Your task to perform on an android device: Open eBay Image 0: 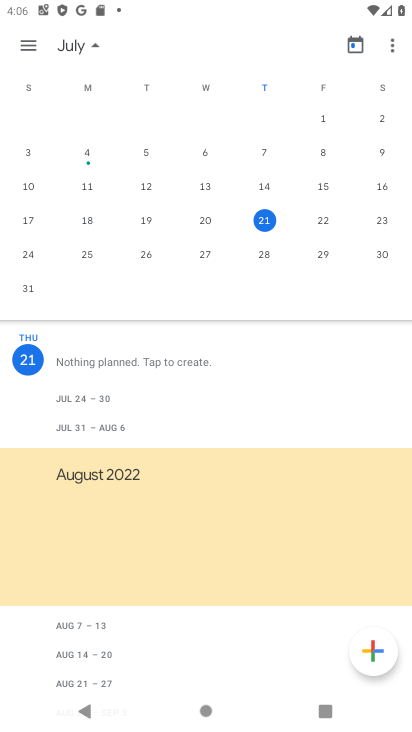
Step 0: press home button
Your task to perform on an android device: Open eBay Image 1: 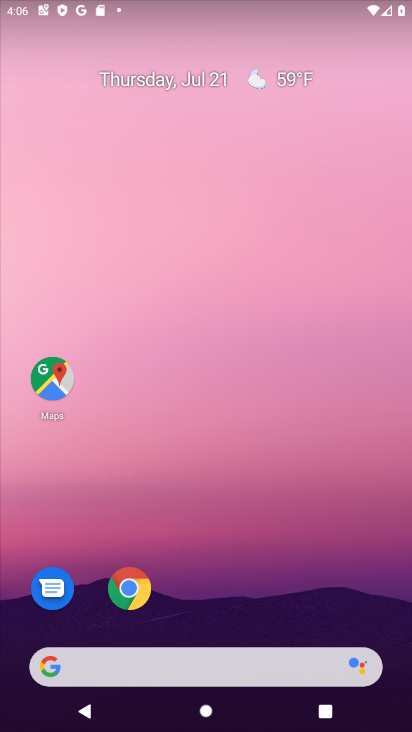
Step 1: click (127, 589)
Your task to perform on an android device: Open eBay Image 2: 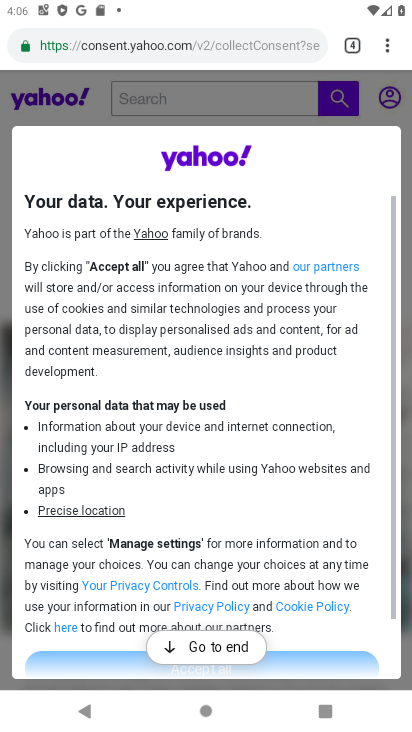
Step 2: click (388, 50)
Your task to perform on an android device: Open eBay Image 3: 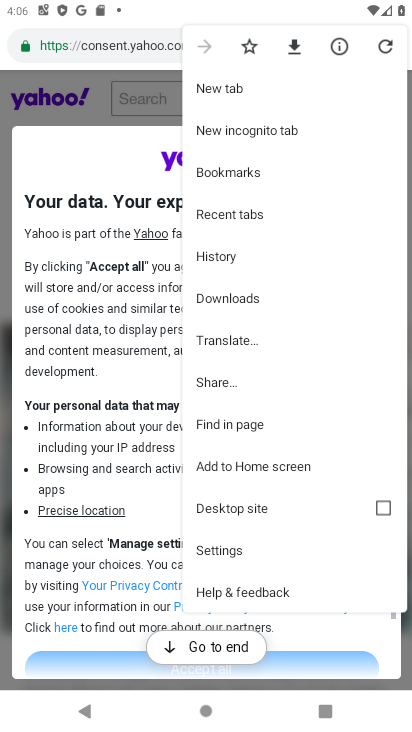
Step 3: click (219, 86)
Your task to perform on an android device: Open eBay Image 4: 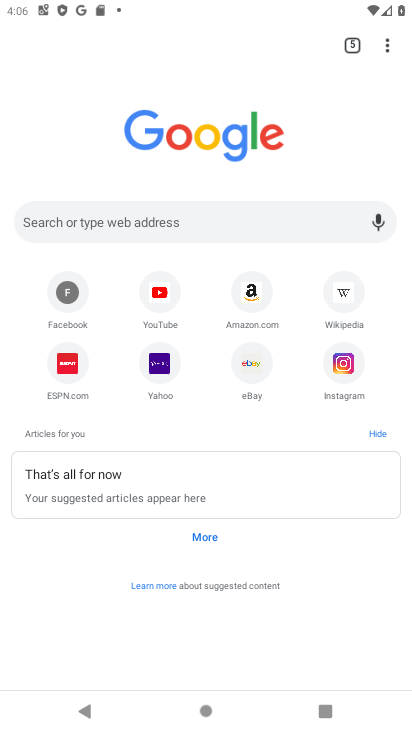
Step 4: click (246, 357)
Your task to perform on an android device: Open eBay Image 5: 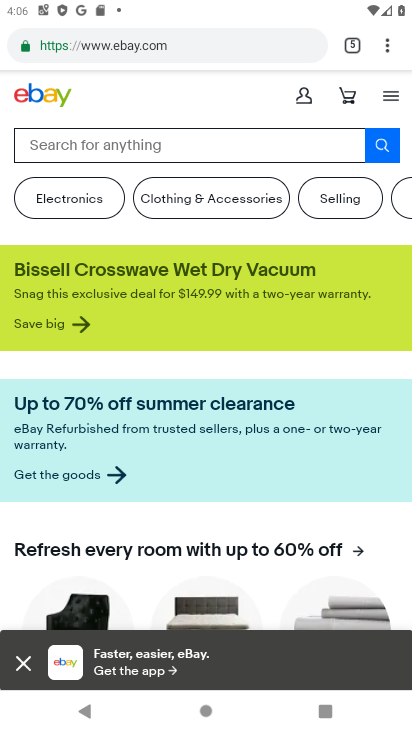
Step 5: task complete